Your task to perform on an android device: Show me the alarms in the clock app Image 0: 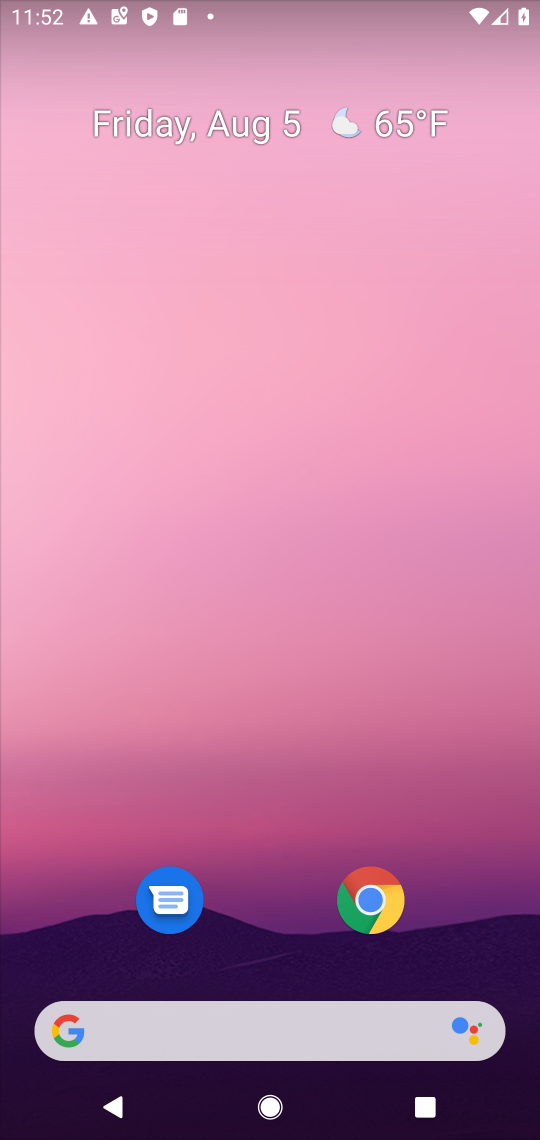
Step 0: drag from (256, 533) to (256, 128)
Your task to perform on an android device: Show me the alarms in the clock app Image 1: 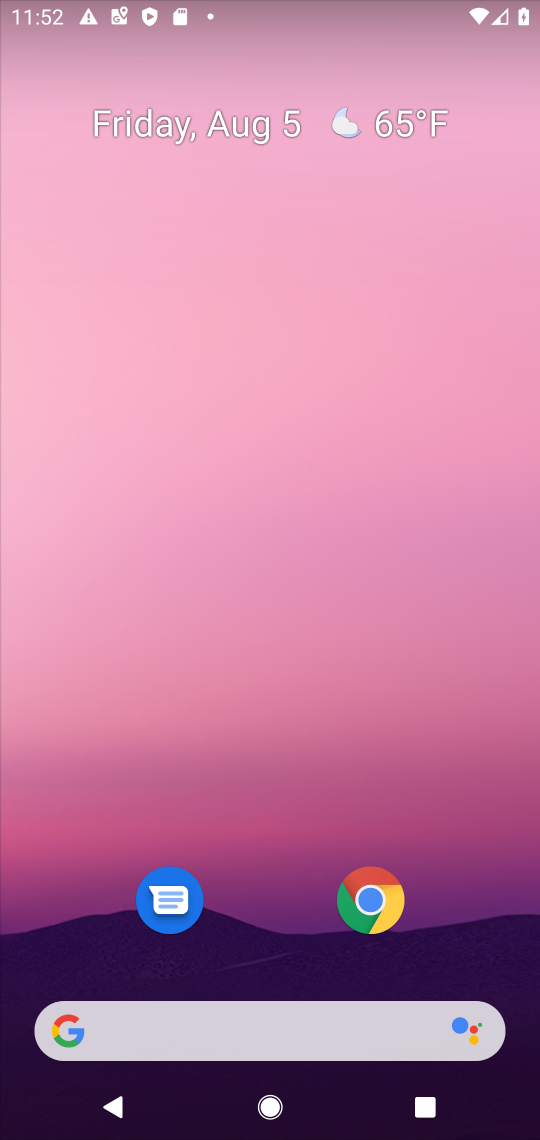
Step 1: drag from (258, 771) to (258, 311)
Your task to perform on an android device: Show me the alarms in the clock app Image 2: 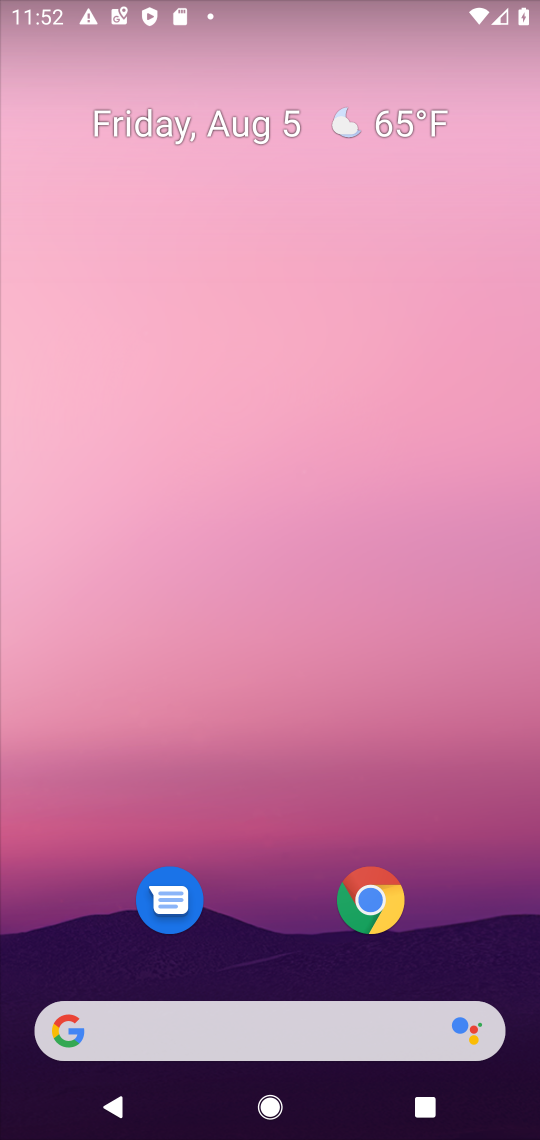
Step 2: drag from (303, 986) to (277, 123)
Your task to perform on an android device: Show me the alarms in the clock app Image 3: 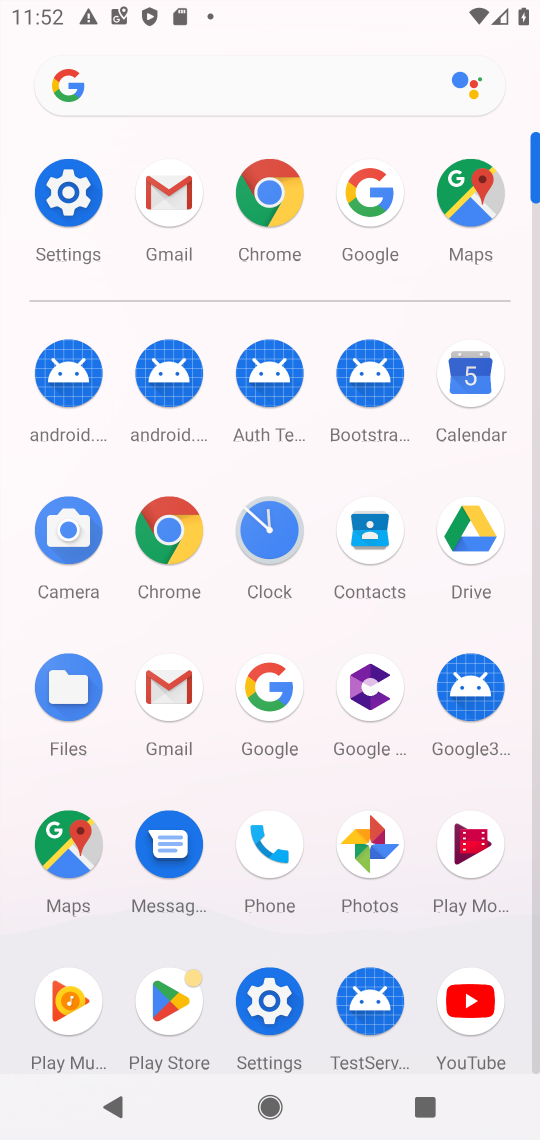
Step 3: click (273, 523)
Your task to perform on an android device: Show me the alarms in the clock app Image 4: 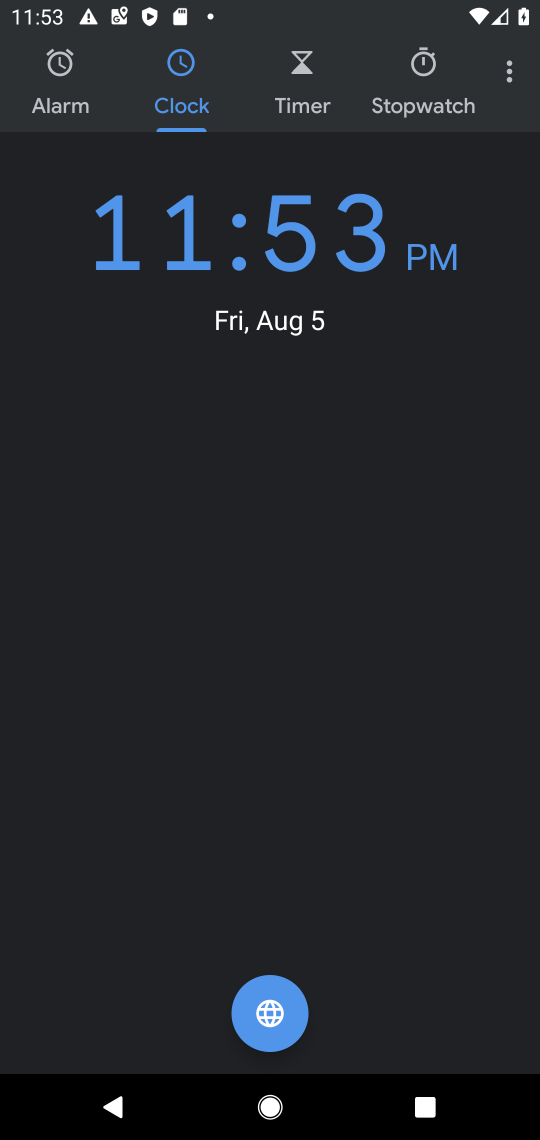
Step 4: click (69, 82)
Your task to perform on an android device: Show me the alarms in the clock app Image 5: 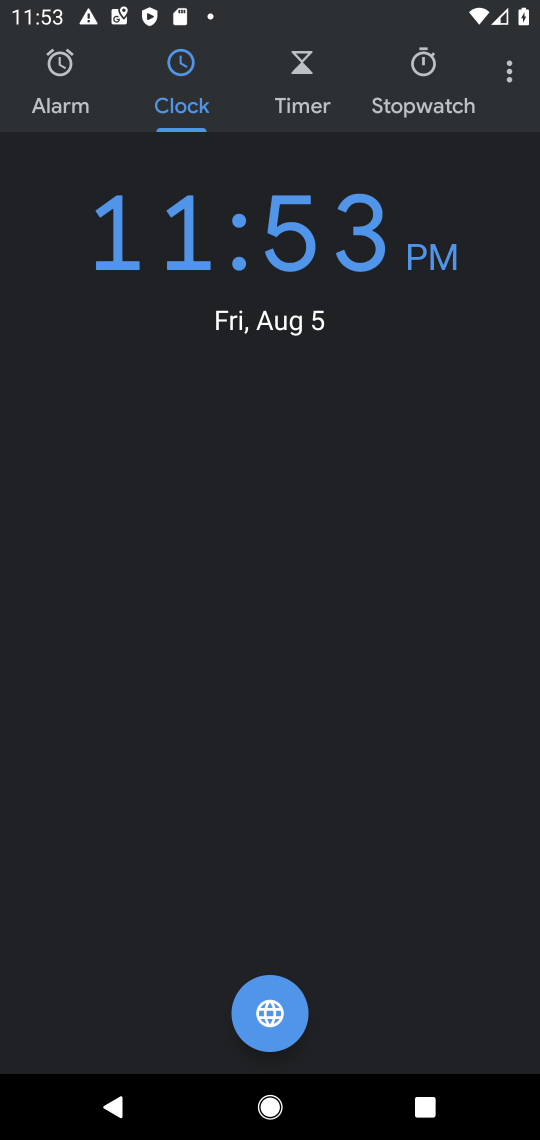
Step 5: click (43, 89)
Your task to perform on an android device: Show me the alarms in the clock app Image 6: 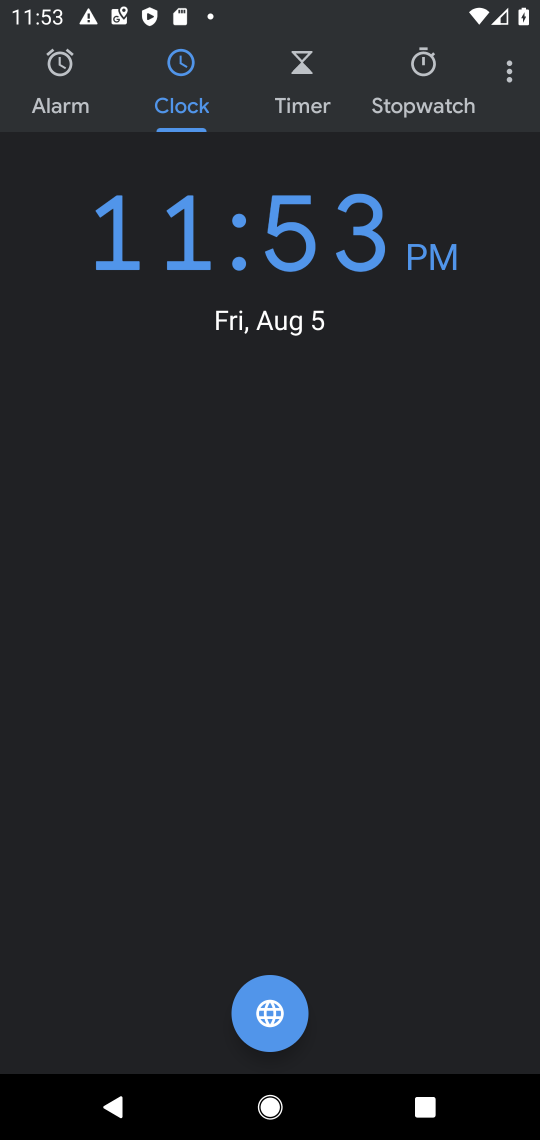
Step 6: click (47, 89)
Your task to perform on an android device: Show me the alarms in the clock app Image 7: 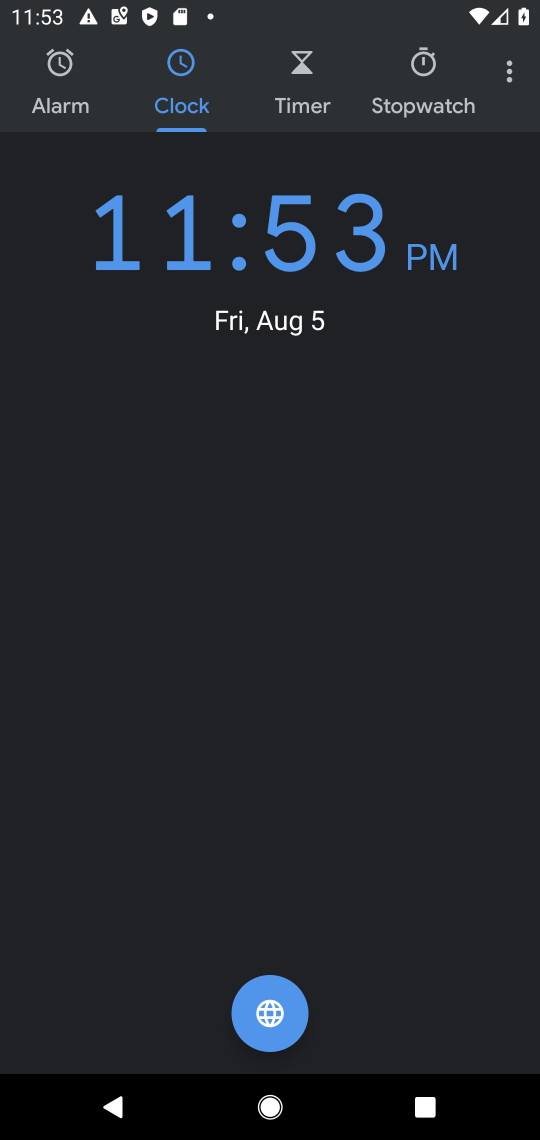
Step 7: click (76, 107)
Your task to perform on an android device: Show me the alarms in the clock app Image 8: 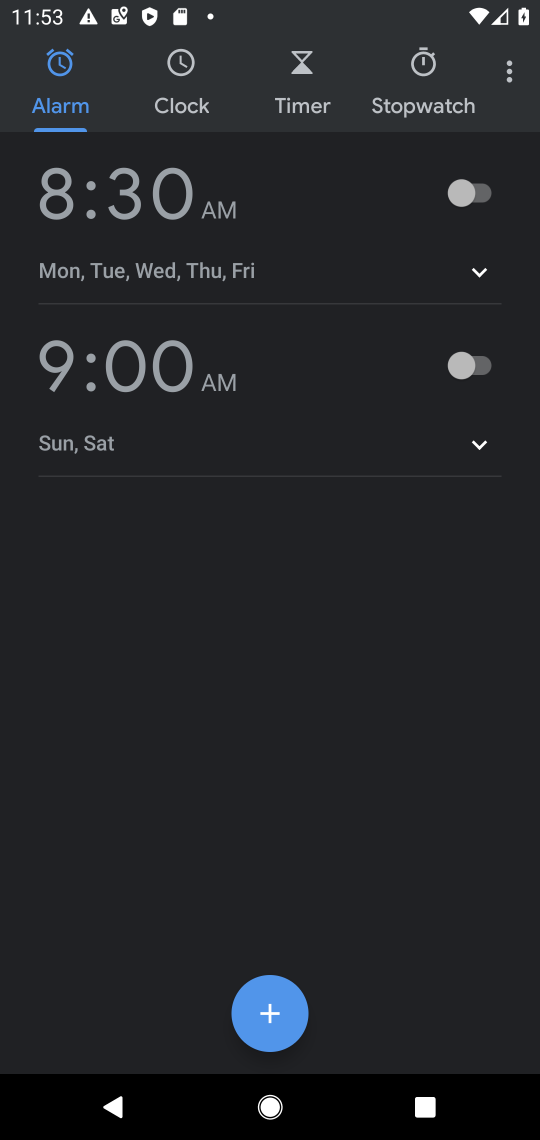
Step 8: task complete